Your task to perform on an android device: Play the last video I watched on Youtube Image 0: 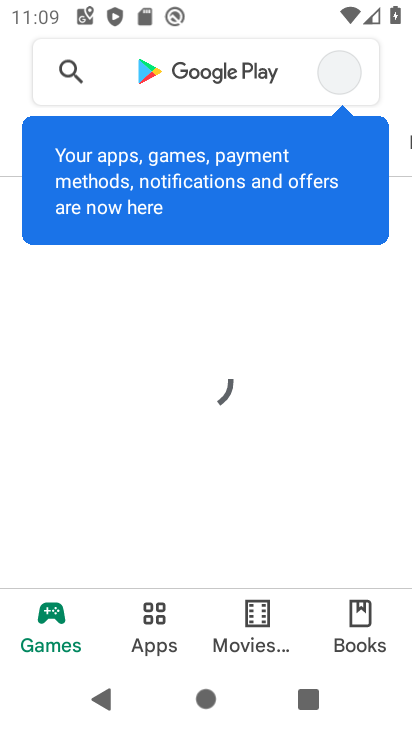
Step 0: press home button
Your task to perform on an android device: Play the last video I watched on Youtube Image 1: 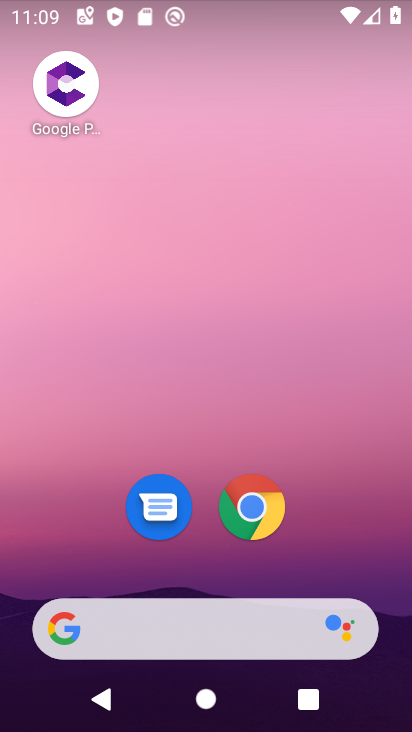
Step 1: drag from (213, 560) to (210, 106)
Your task to perform on an android device: Play the last video I watched on Youtube Image 2: 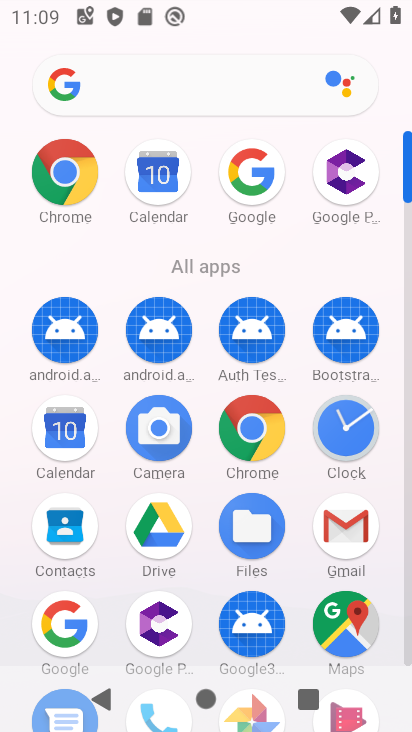
Step 2: drag from (206, 595) to (241, 65)
Your task to perform on an android device: Play the last video I watched on Youtube Image 3: 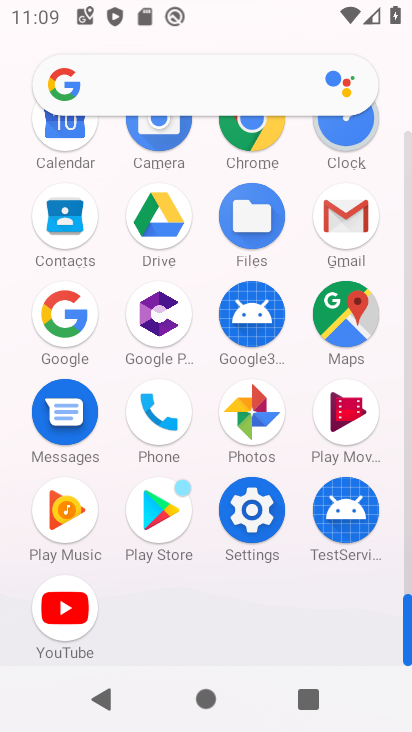
Step 3: click (62, 613)
Your task to perform on an android device: Play the last video I watched on Youtube Image 4: 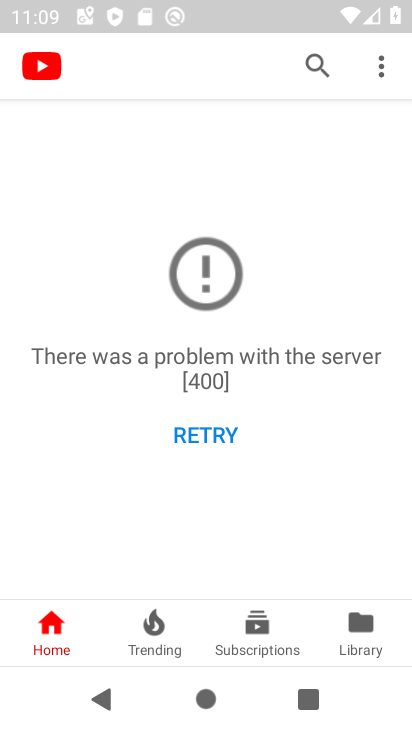
Step 4: click (315, 59)
Your task to perform on an android device: Play the last video I watched on Youtube Image 5: 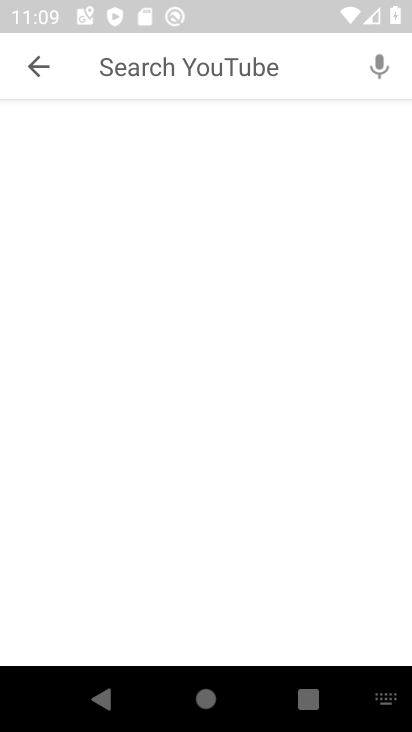
Step 5: task complete